Your task to perform on an android device: Do I have any events this weekend? Image 0: 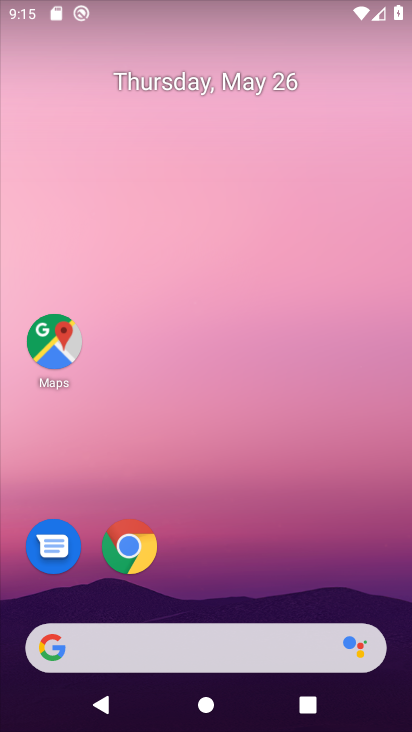
Step 0: drag from (352, 560) to (288, 83)
Your task to perform on an android device: Do I have any events this weekend? Image 1: 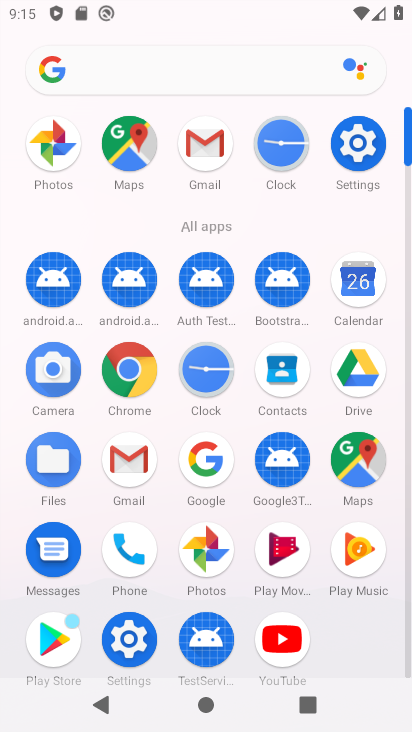
Step 1: click (376, 289)
Your task to perform on an android device: Do I have any events this weekend? Image 2: 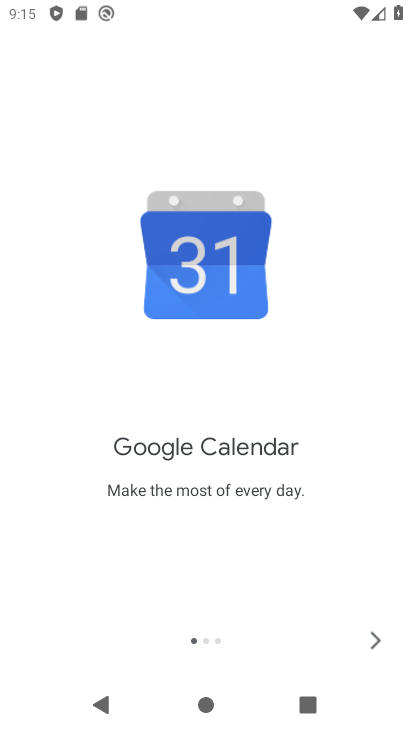
Step 2: click (370, 649)
Your task to perform on an android device: Do I have any events this weekend? Image 3: 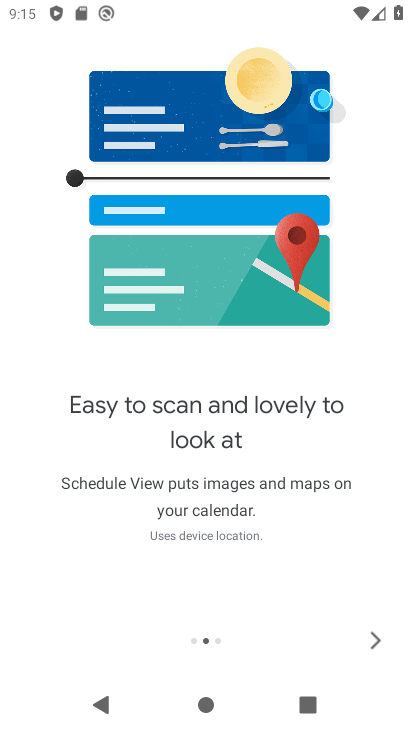
Step 3: click (369, 649)
Your task to perform on an android device: Do I have any events this weekend? Image 4: 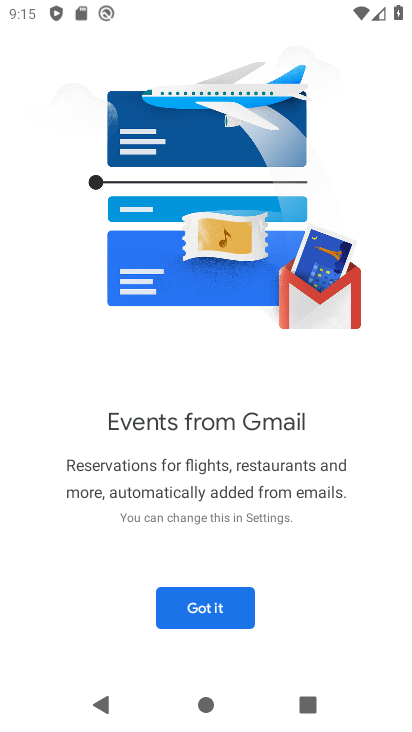
Step 4: click (223, 605)
Your task to perform on an android device: Do I have any events this weekend? Image 5: 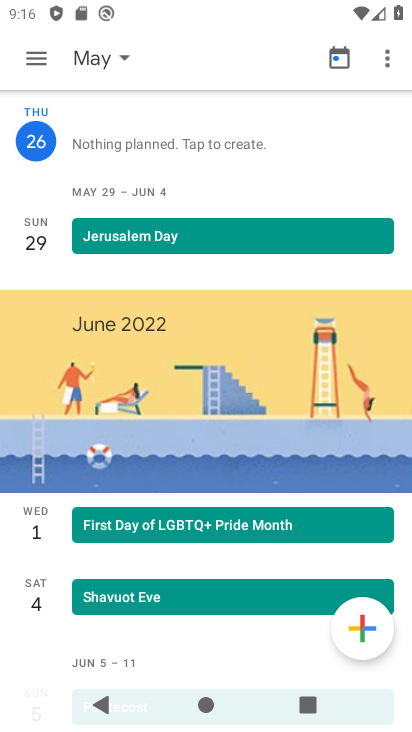
Step 5: click (100, 73)
Your task to perform on an android device: Do I have any events this weekend? Image 6: 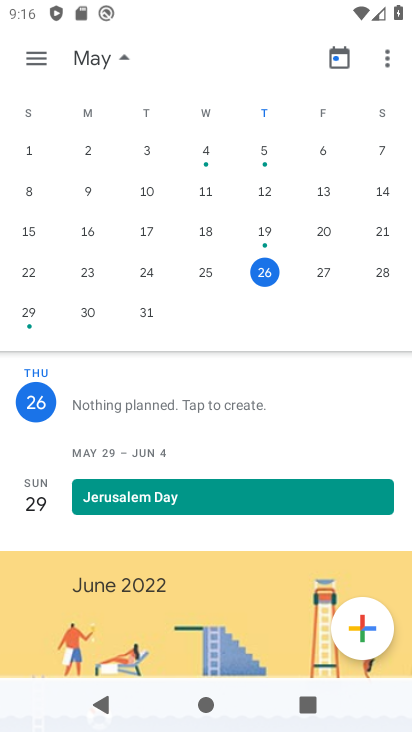
Step 6: click (30, 310)
Your task to perform on an android device: Do I have any events this weekend? Image 7: 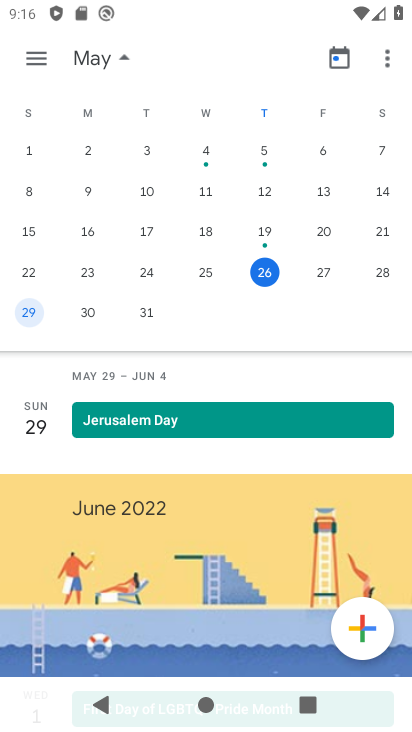
Step 7: task complete